Your task to perform on an android device: Go to ESPN.com Image 0: 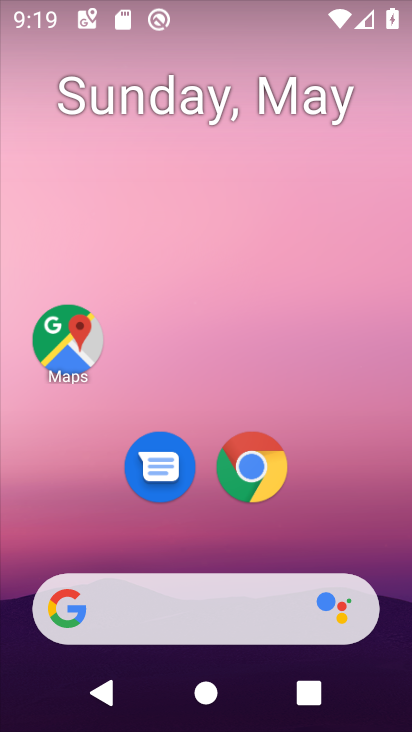
Step 0: press home button
Your task to perform on an android device: Go to ESPN.com Image 1: 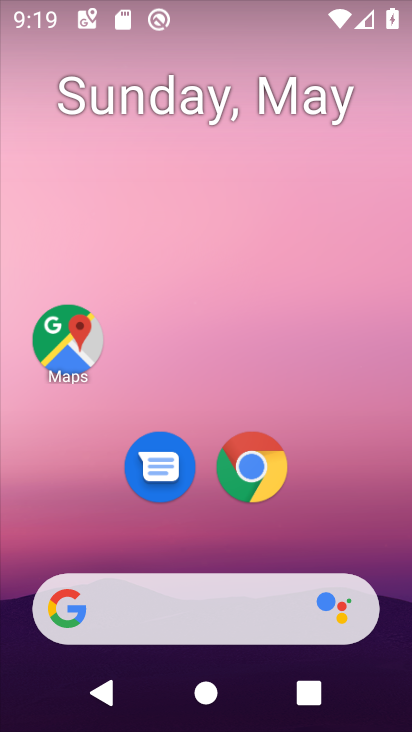
Step 1: drag from (358, 504) to (383, 101)
Your task to perform on an android device: Go to ESPN.com Image 2: 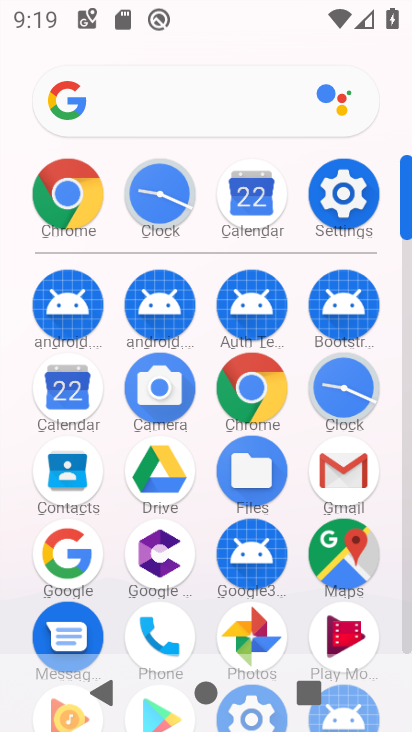
Step 2: click (235, 409)
Your task to perform on an android device: Go to ESPN.com Image 3: 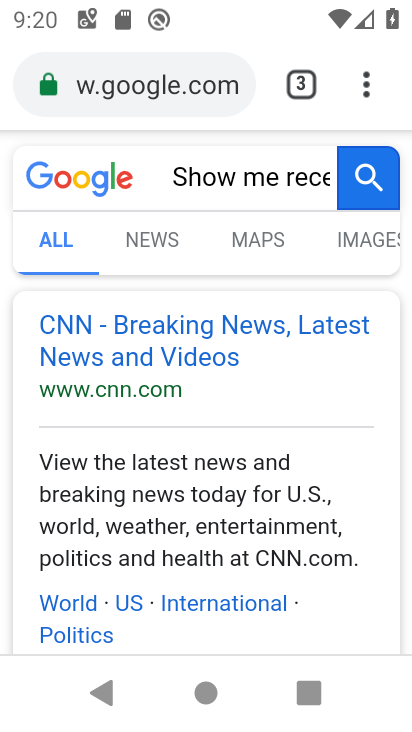
Step 3: click (305, 91)
Your task to perform on an android device: Go to ESPN.com Image 4: 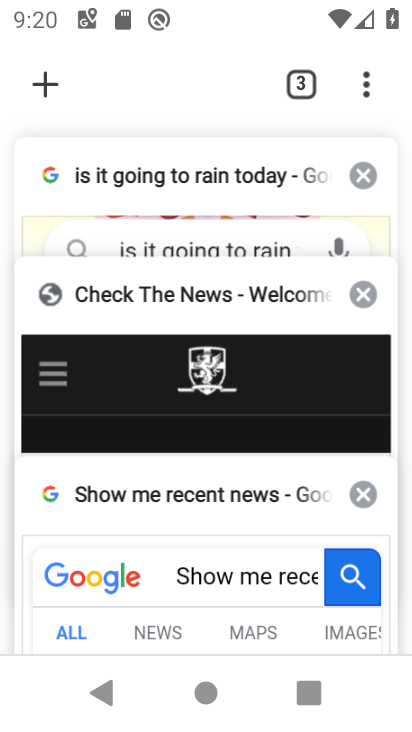
Step 4: click (30, 99)
Your task to perform on an android device: Go to ESPN.com Image 5: 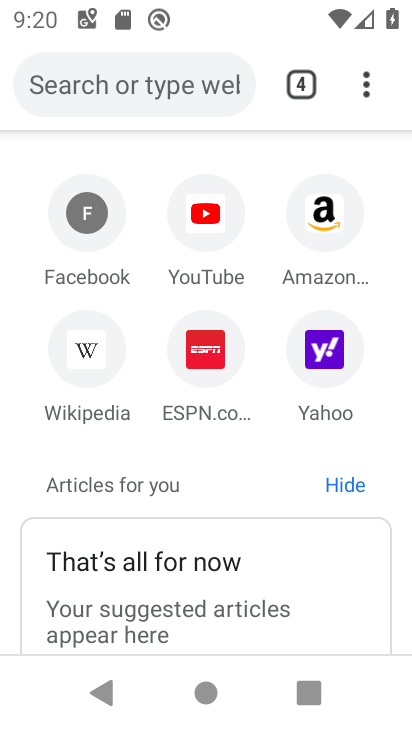
Step 5: click (136, 74)
Your task to perform on an android device: Go to ESPN.com Image 6: 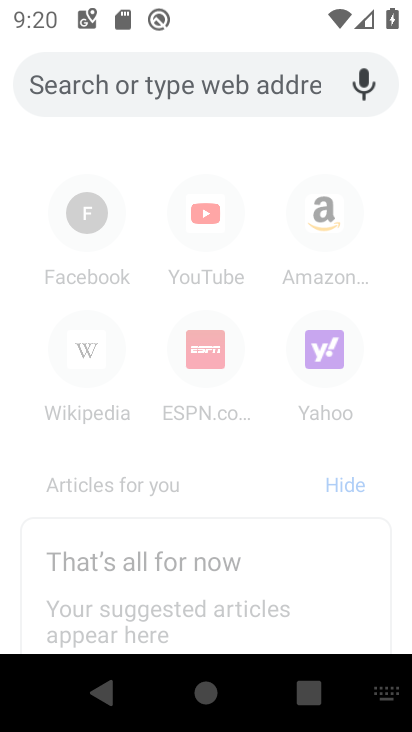
Step 6: type "espn.com"
Your task to perform on an android device: Go to ESPN.com Image 7: 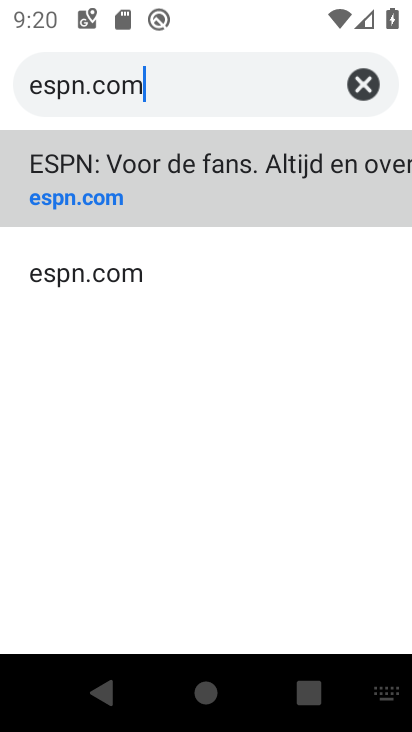
Step 7: click (156, 181)
Your task to perform on an android device: Go to ESPN.com Image 8: 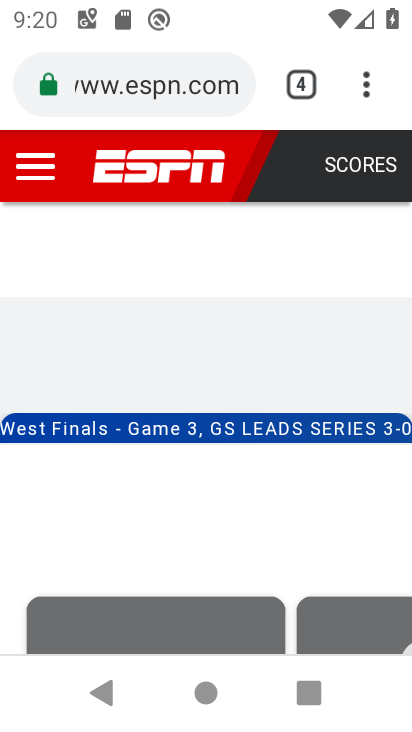
Step 8: task complete